Your task to perform on an android device: When is my next appointment? Image 0: 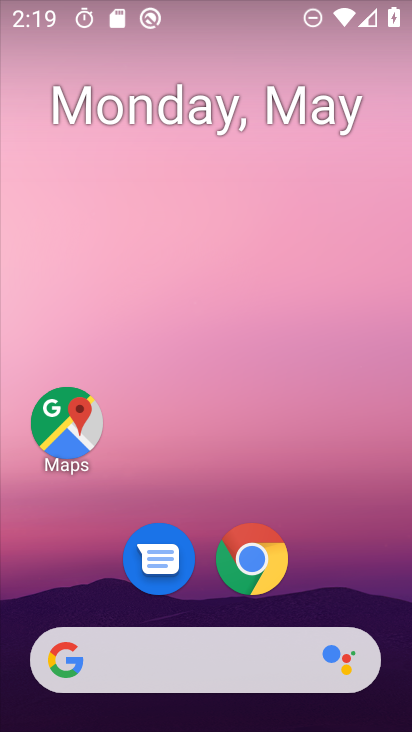
Step 0: drag from (341, 619) to (363, 26)
Your task to perform on an android device: When is my next appointment? Image 1: 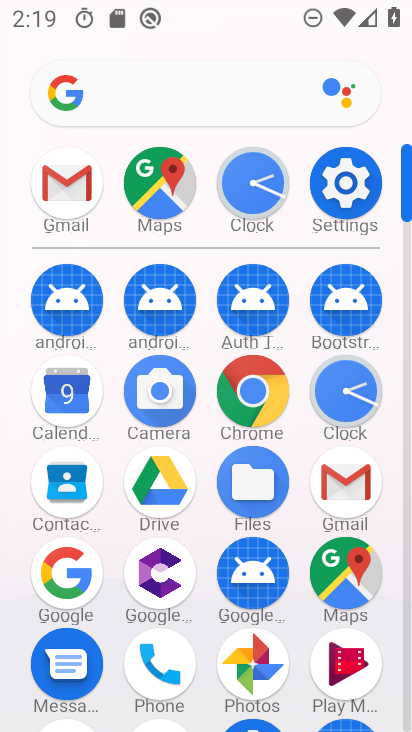
Step 1: click (60, 399)
Your task to perform on an android device: When is my next appointment? Image 2: 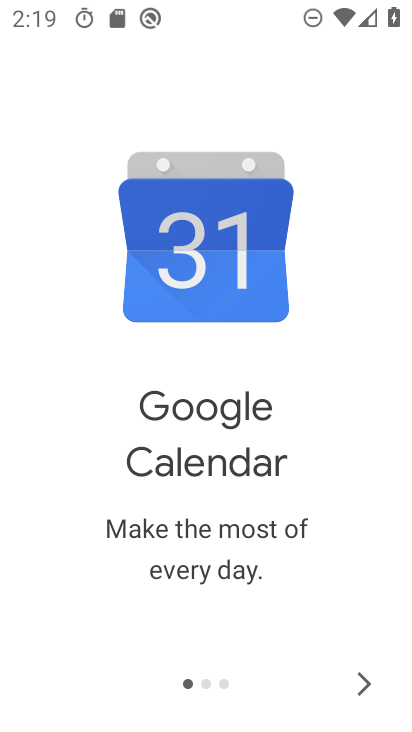
Step 2: click (361, 692)
Your task to perform on an android device: When is my next appointment? Image 3: 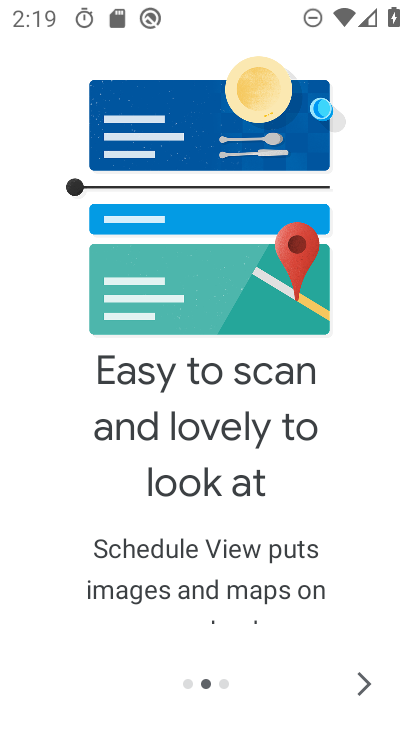
Step 3: click (361, 692)
Your task to perform on an android device: When is my next appointment? Image 4: 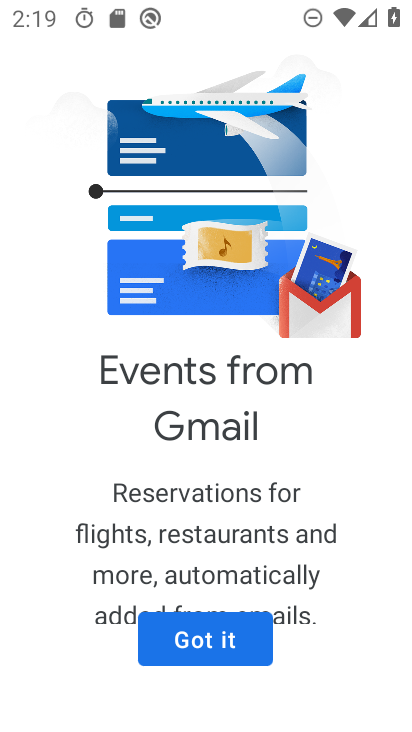
Step 4: click (192, 639)
Your task to perform on an android device: When is my next appointment? Image 5: 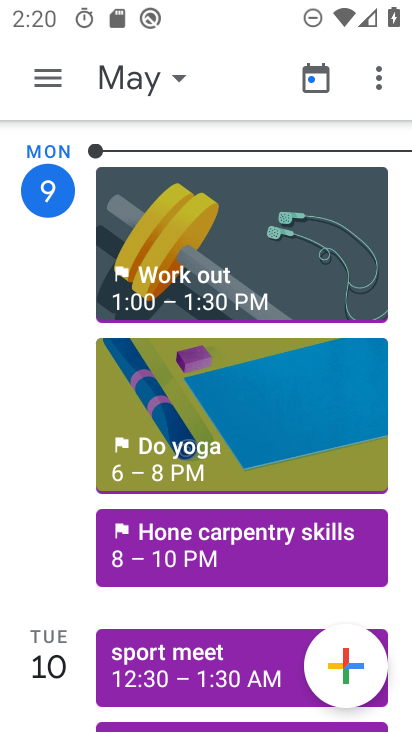
Step 5: click (209, 678)
Your task to perform on an android device: When is my next appointment? Image 6: 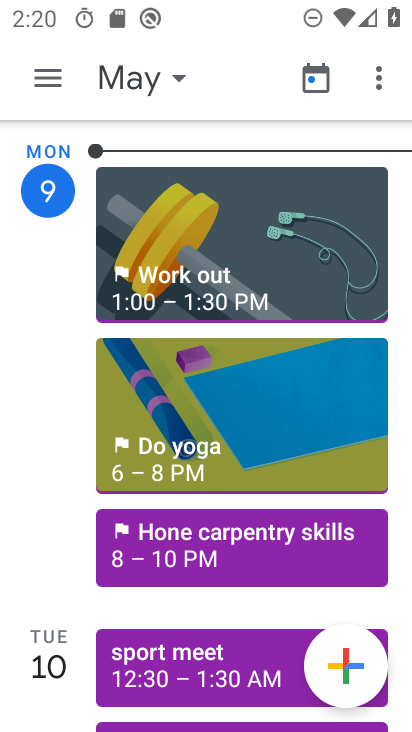
Step 6: click (208, 564)
Your task to perform on an android device: When is my next appointment? Image 7: 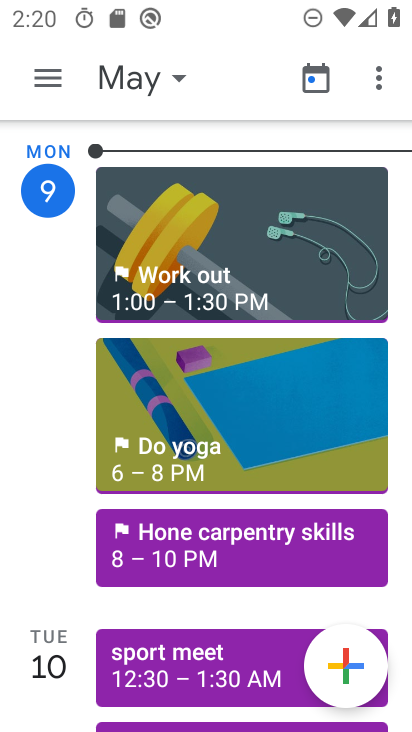
Step 7: click (218, 557)
Your task to perform on an android device: When is my next appointment? Image 8: 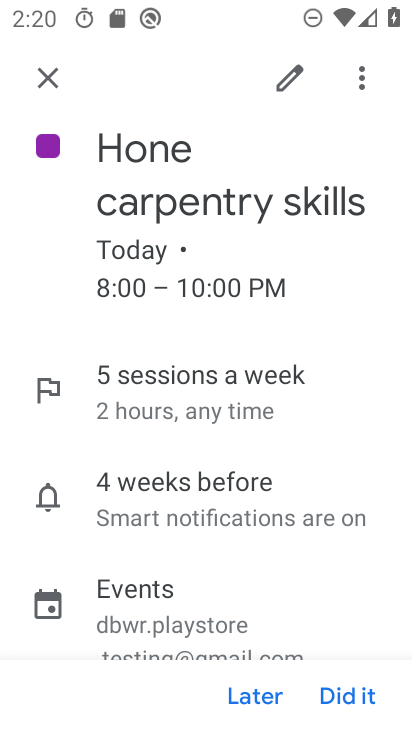
Step 8: task complete